Your task to perform on an android device: Open privacy settings Image 0: 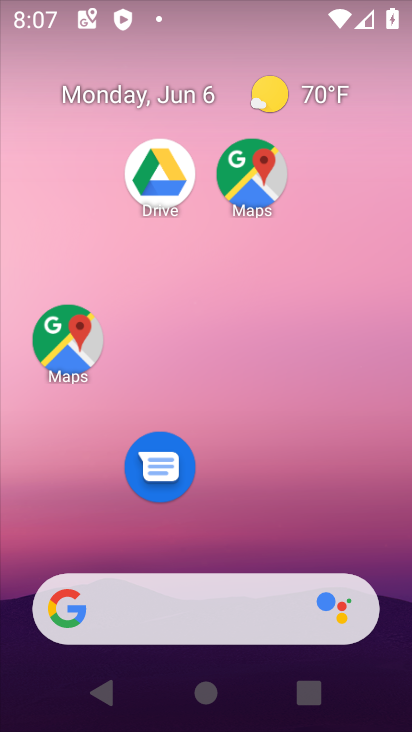
Step 0: drag from (233, 699) to (167, 129)
Your task to perform on an android device: Open privacy settings Image 1: 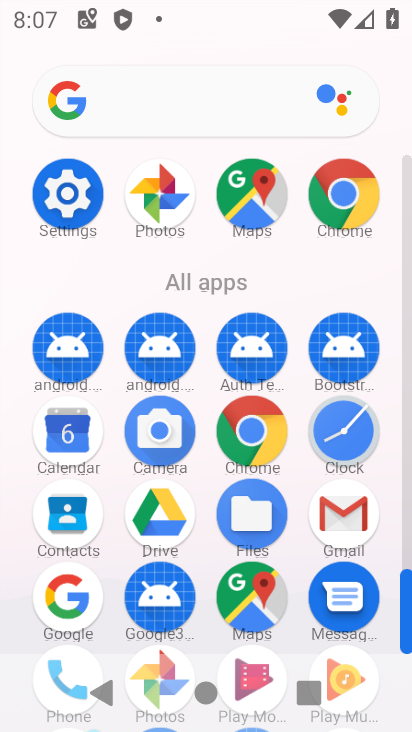
Step 1: click (62, 179)
Your task to perform on an android device: Open privacy settings Image 2: 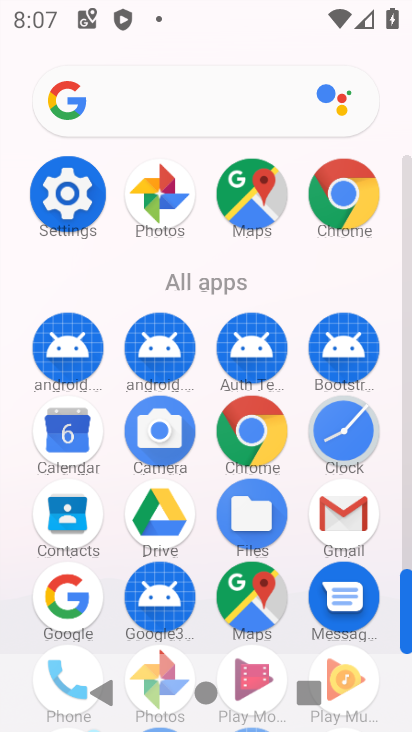
Step 2: click (63, 184)
Your task to perform on an android device: Open privacy settings Image 3: 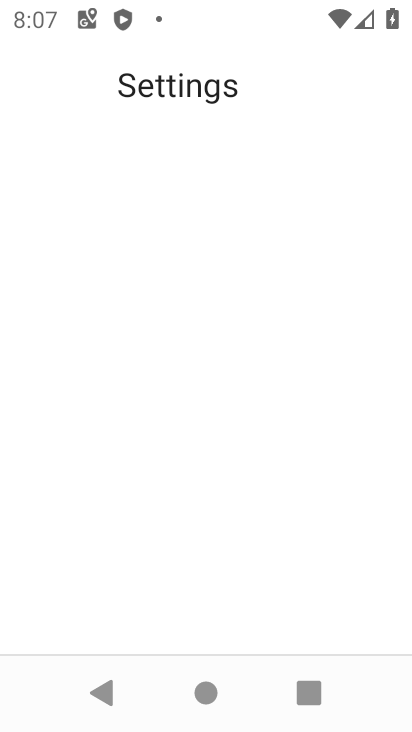
Step 3: click (63, 185)
Your task to perform on an android device: Open privacy settings Image 4: 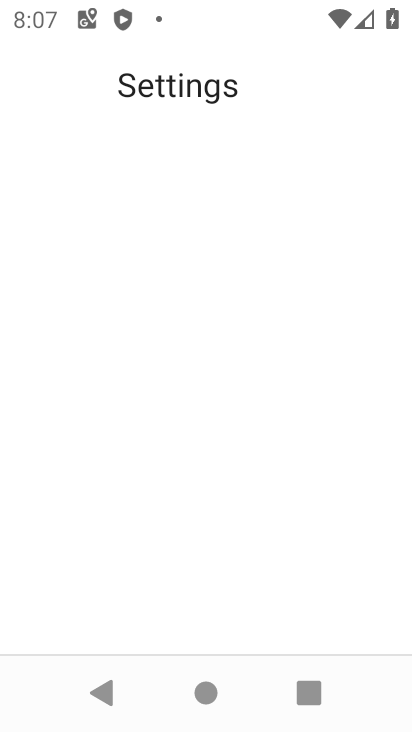
Step 4: click (72, 186)
Your task to perform on an android device: Open privacy settings Image 5: 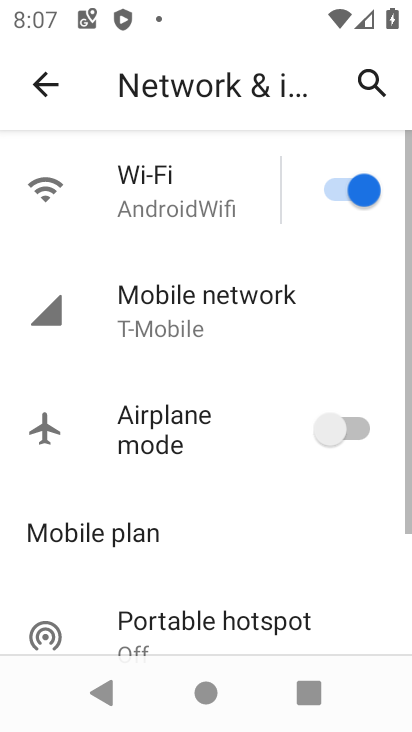
Step 5: drag from (204, 556) to (160, 103)
Your task to perform on an android device: Open privacy settings Image 6: 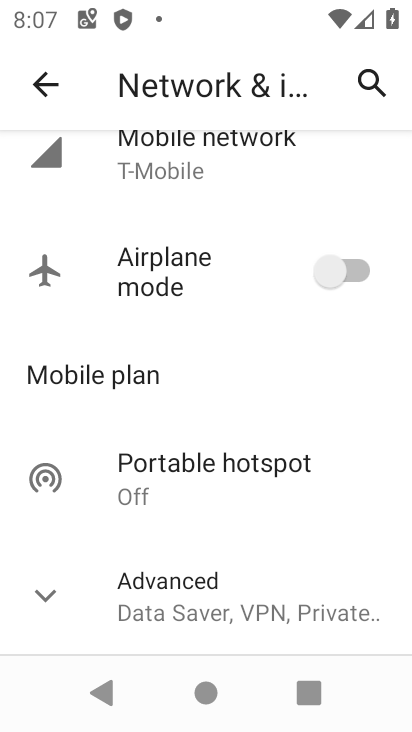
Step 6: click (43, 94)
Your task to perform on an android device: Open privacy settings Image 7: 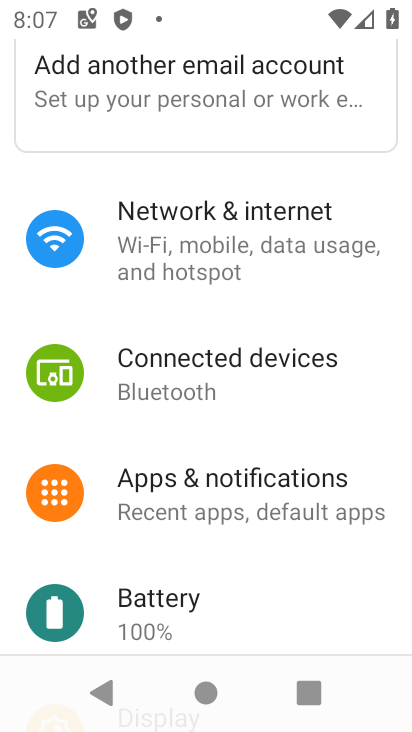
Step 7: drag from (223, 610) to (140, 195)
Your task to perform on an android device: Open privacy settings Image 8: 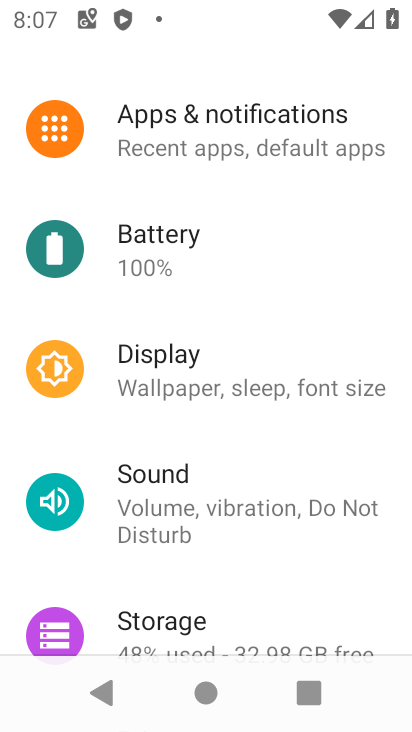
Step 8: drag from (186, 504) to (155, 268)
Your task to perform on an android device: Open privacy settings Image 9: 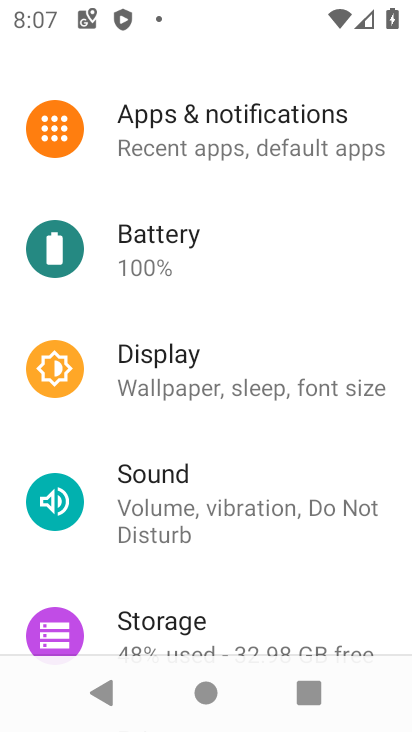
Step 9: drag from (158, 480) to (158, 245)
Your task to perform on an android device: Open privacy settings Image 10: 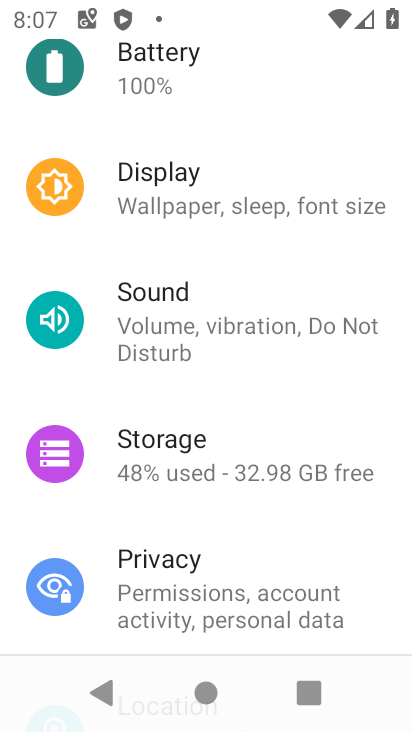
Step 10: drag from (211, 496) to (181, 216)
Your task to perform on an android device: Open privacy settings Image 11: 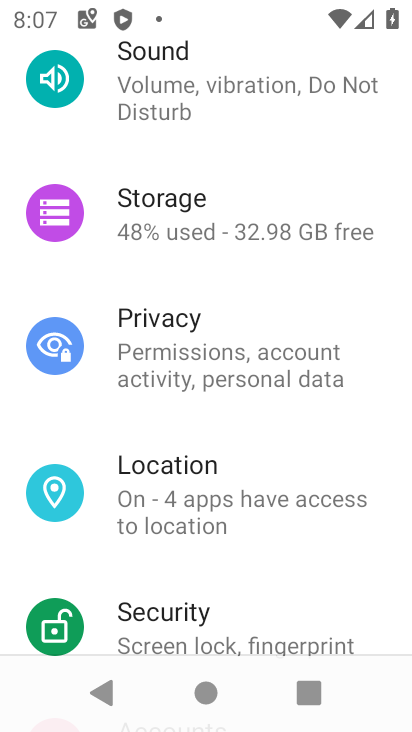
Step 11: drag from (201, 452) to (171, 228)
Your task to perform on an android device: Open privacy settings Image 12: 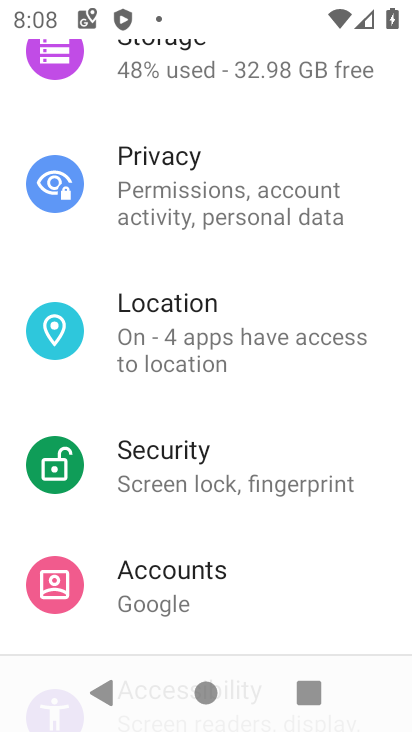
Step 12: click (152, 175)
Your task to perform on an android device: Open privacy settings Image 13: 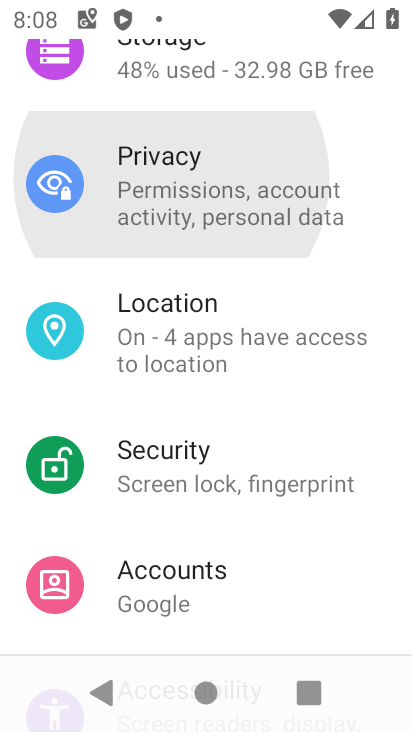
Step 13: click (152, 175)
Your task to perform on an android device: Open privacy settings Image 14: 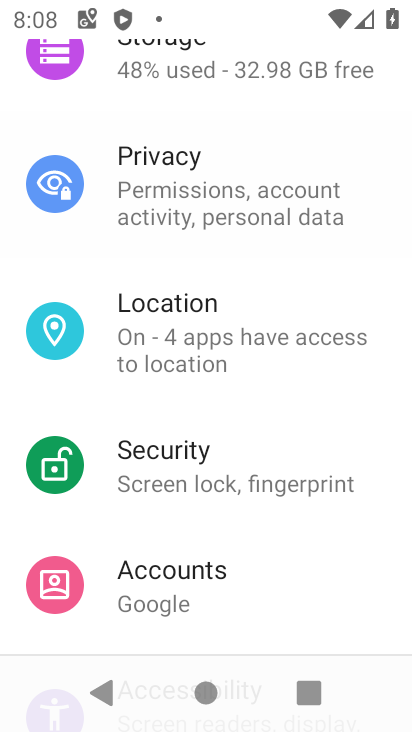
Step 14: click (152, 175)
Your task to perform on an android device: Open privacy settings Image 15: 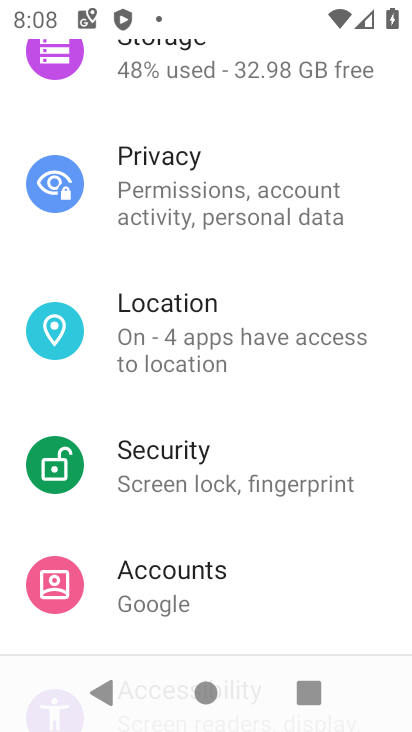
Step 15: click (152, 175)
Your task to perform on an android device: Open privacy settings Image 16: 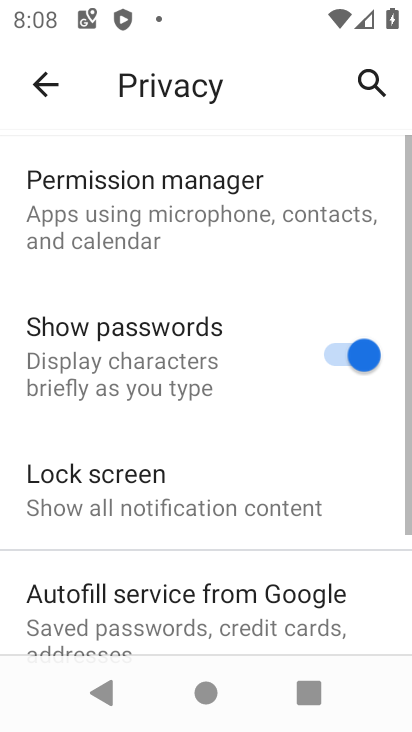
Step 16: task complete